Your task to perform on an android device: Go to sound settings Image 0: 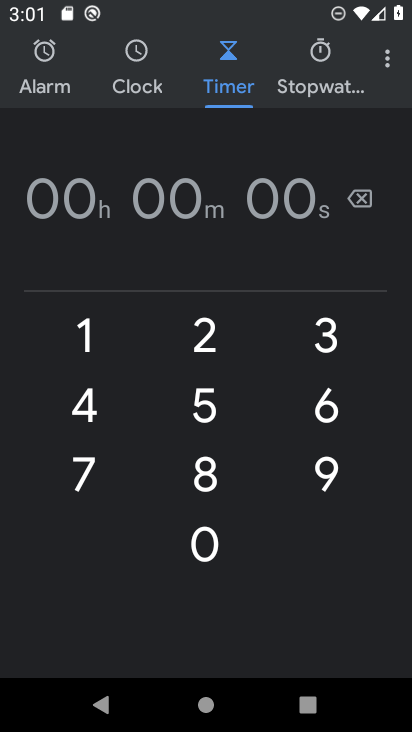
Step 0: press home button
Your task to perform on an android device: Go to sound settings Image 1: 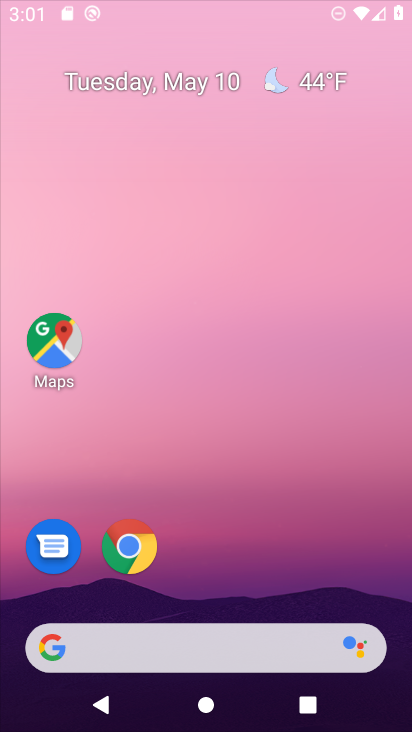
Step 1: drag from (267, 661) to (182, 55)
Your task to perform on an android device: Go to sound settings Image 2: 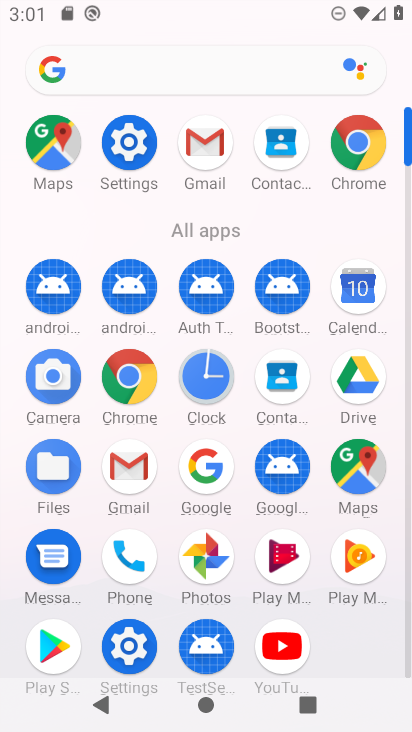
Step 2: click (132, 153)
Your task to perform on an android device: Go to sound settings Image 3: 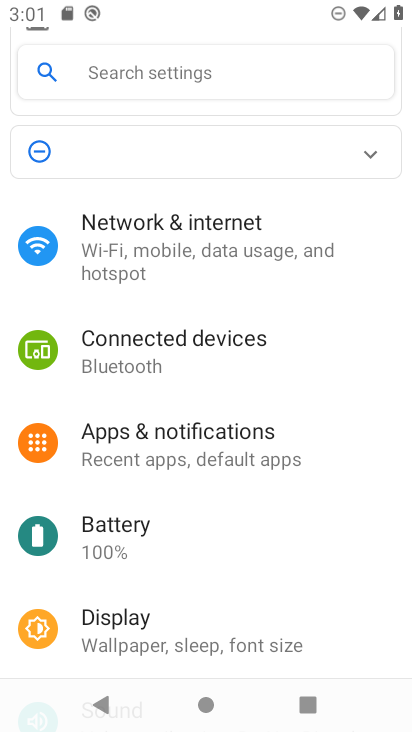
Step 3: drag from (208, 614) to (213, 162)
Your task to perform on an android device: Go to sound settings Image 4: 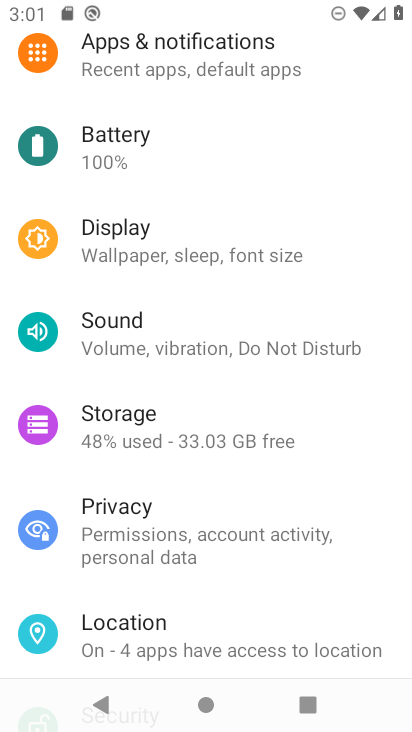
Step 4: click (180, 343)
Your task to perform on an android device: Go to sound settings Image 5: 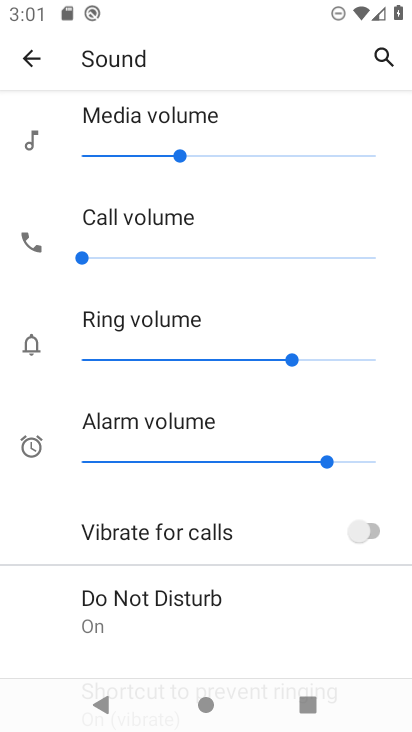
Step 5: task complete